Your task to perform on an android device: Go to wifi settings Image 0: 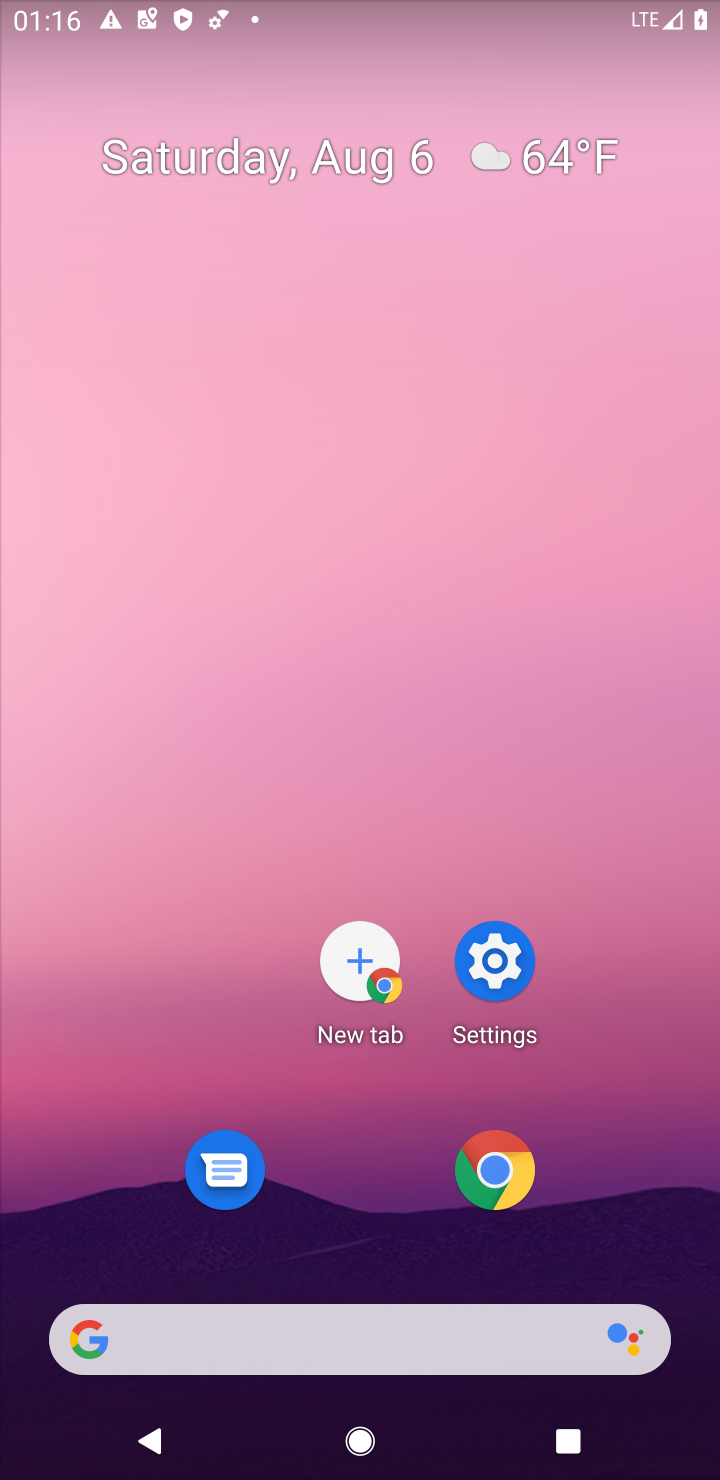
Step 0: click (479, 976)
Your task to perform on an android device: Go to wifi settings Image 1: 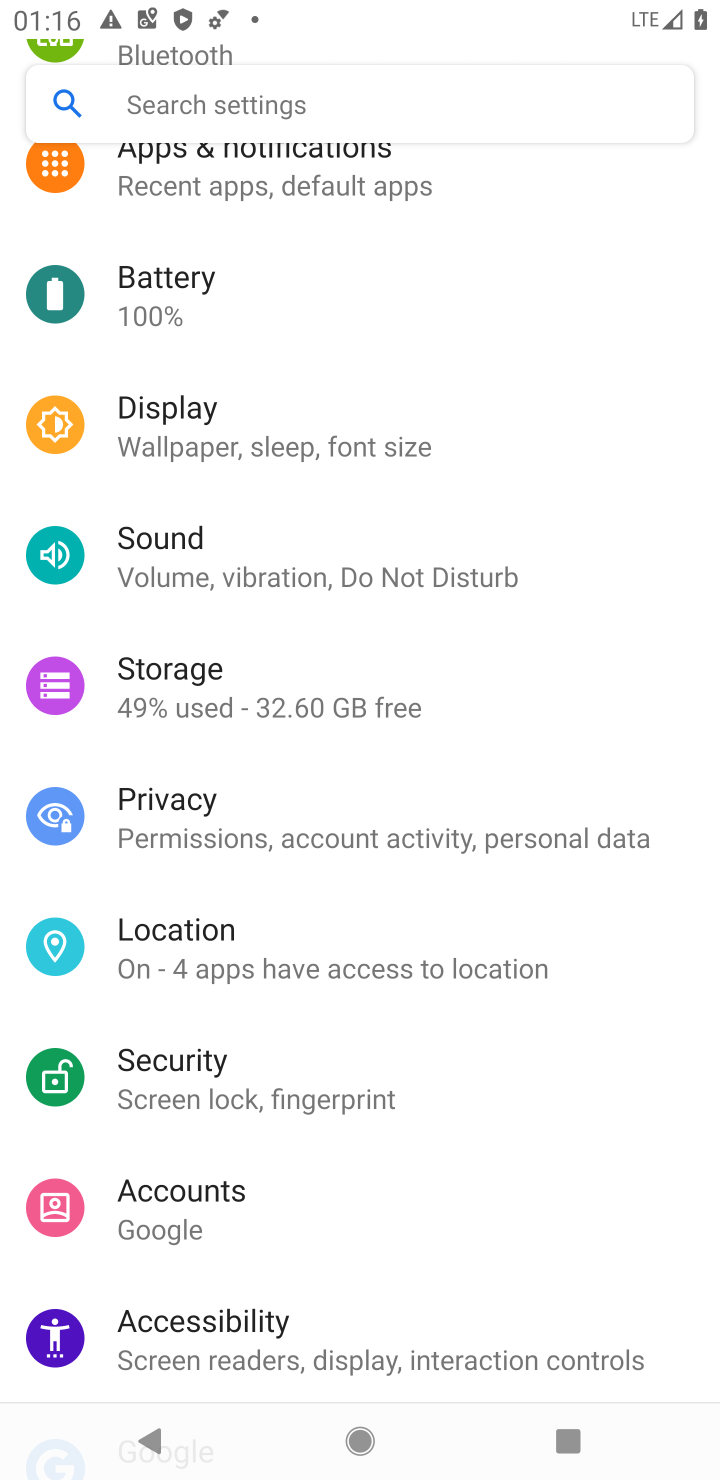
Step 1: click (243, 92)
Your task to perform on an android device: Go to wifi settings Image 2: 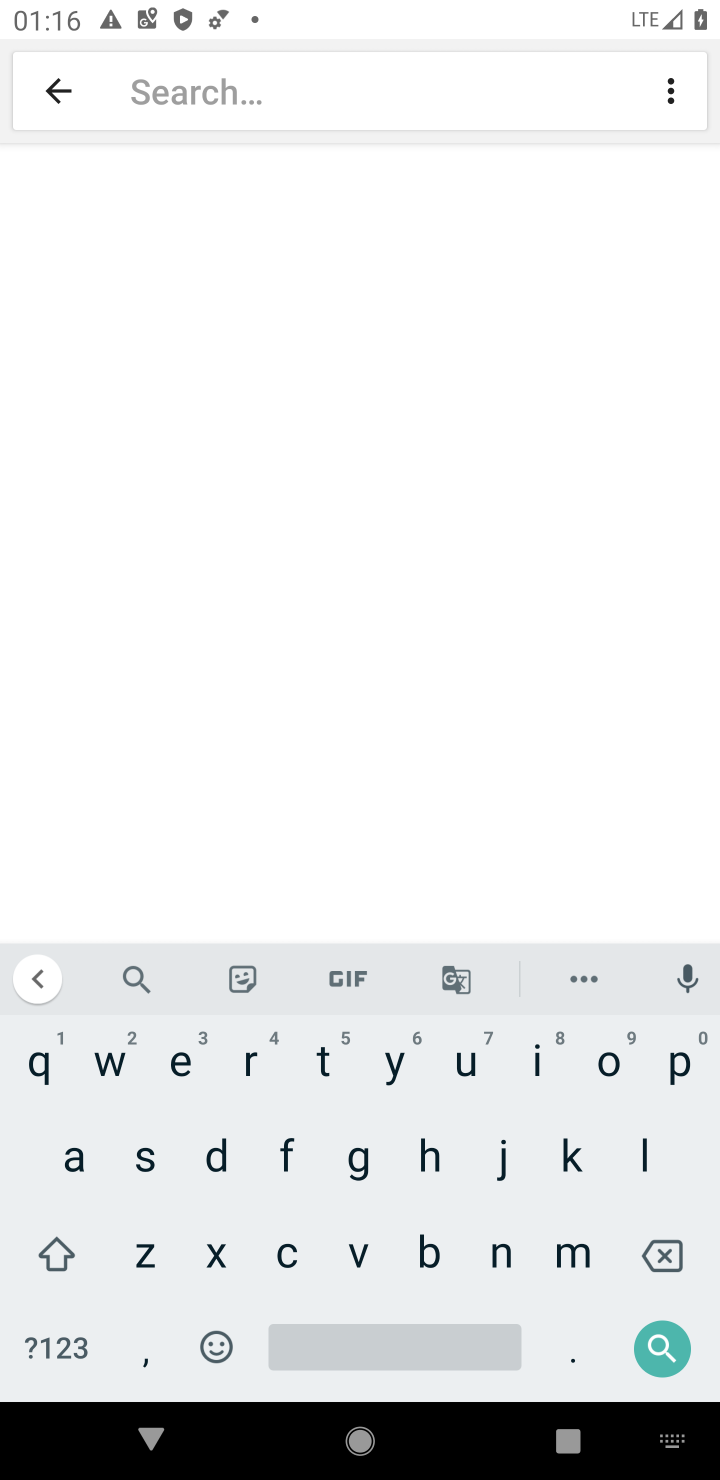
Step 2: click (108, 1055)
Your task to perform on an android device: Go to wifi settings Image 3: 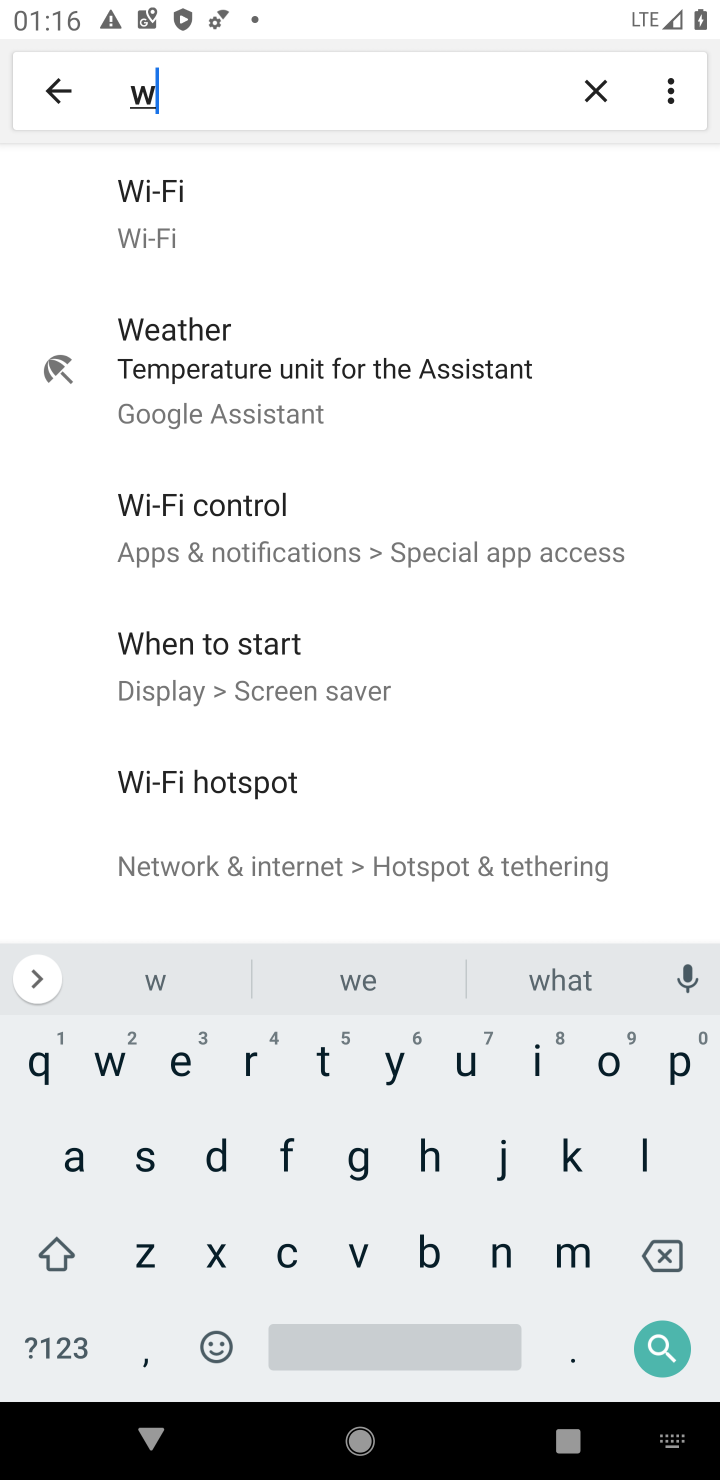
Step 3: click (537, 1050)
Your task to perform on an android device: Go to wifi settings Image 4: 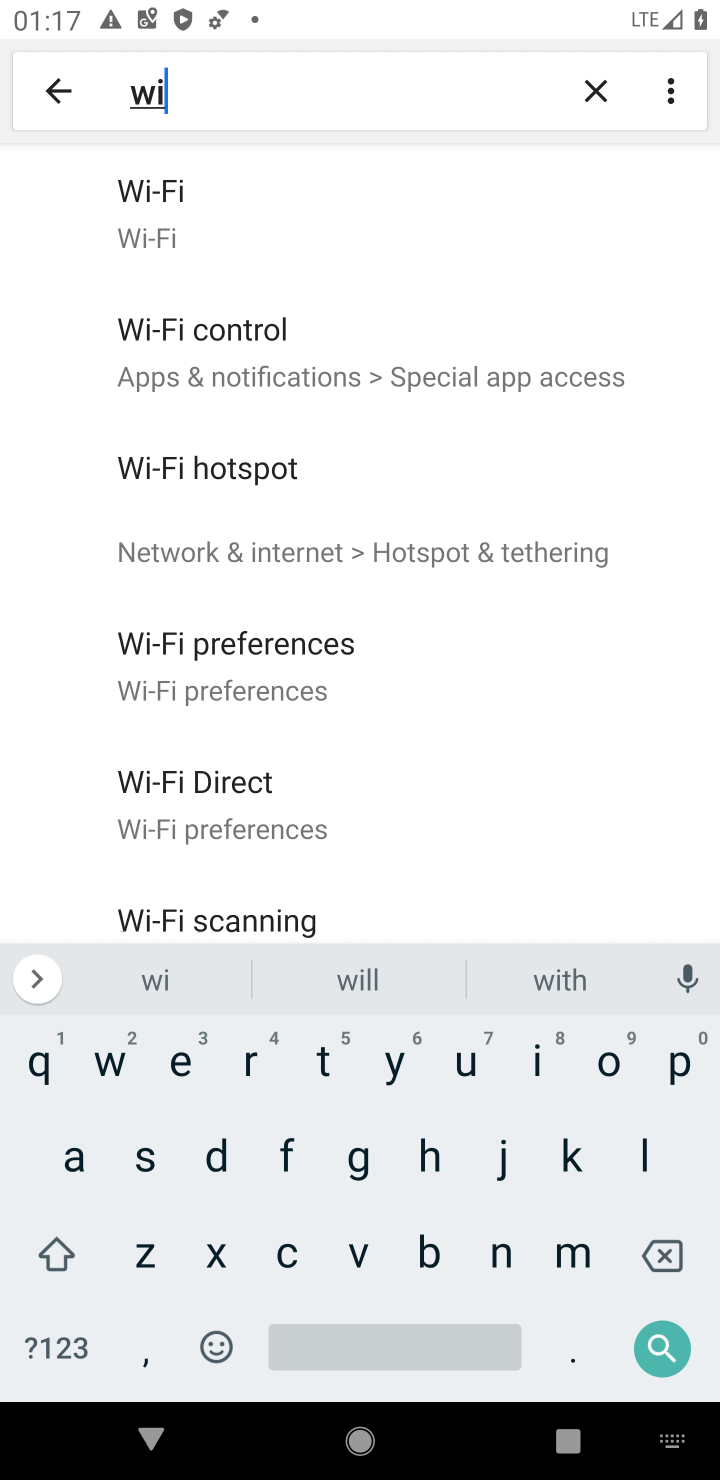
Step 4: click (358, 254)
Your task to perform on an android device: Go to wifi settings Image 5: 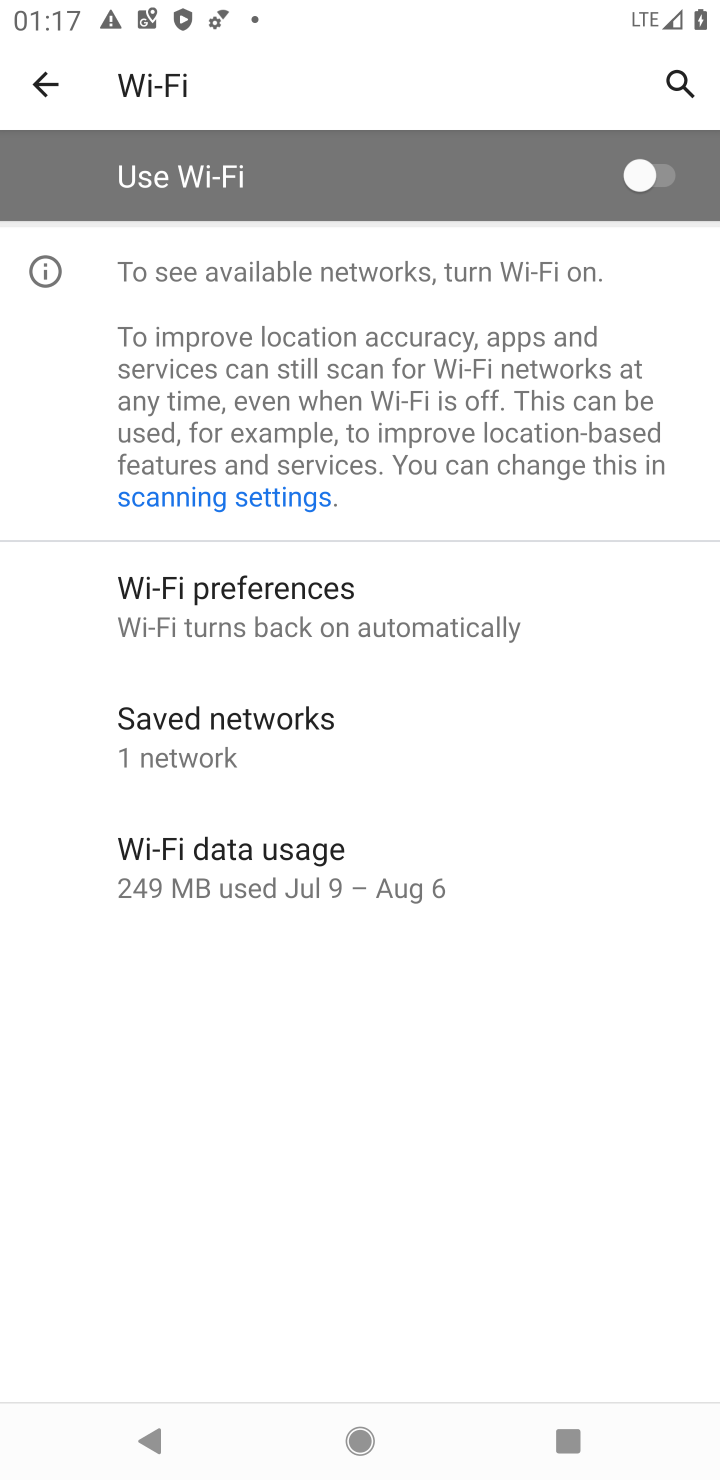
Step 5: task complete